Your task to perform on an android device: allow notifications from all sites in the chrome app Image 0: 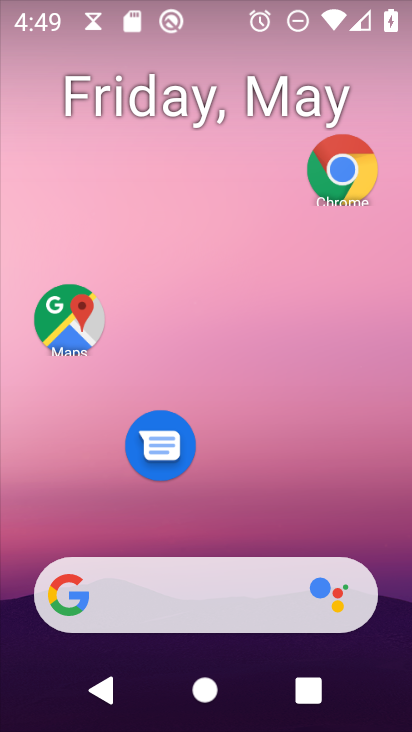
Step 0: click (358, 185)
Your task to perform on an android device: allow notifications from all sites in the chrome app Image 1: 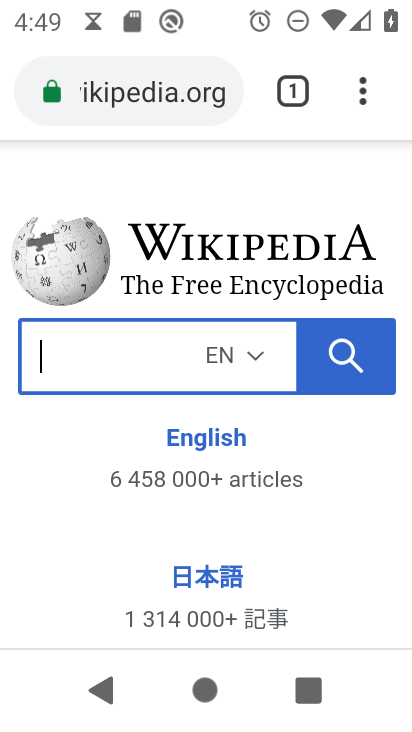
Step 1: click (370, 95)
Your task to perform on an android device: allow notifications from all sites in the chrome app Image 2: 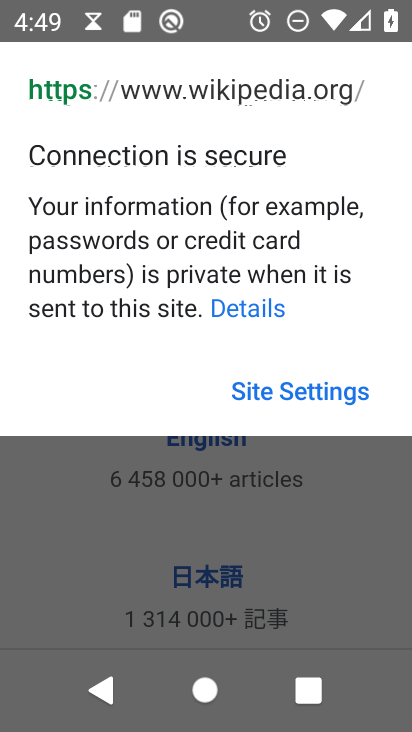
Step 2: click (105, 541)
Your task to perform on an android device: allow notifications from all sites in the chrome app Image 3: 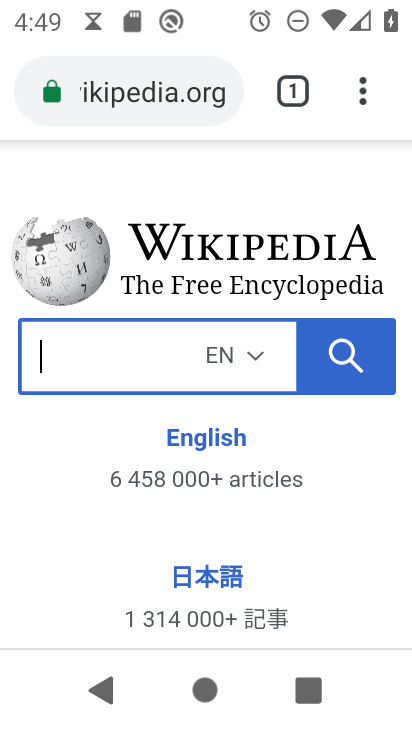
Step 3: click (358, 89)
Your task to perform on an android device: allow notifications from all sites in the chrome app Image 4: 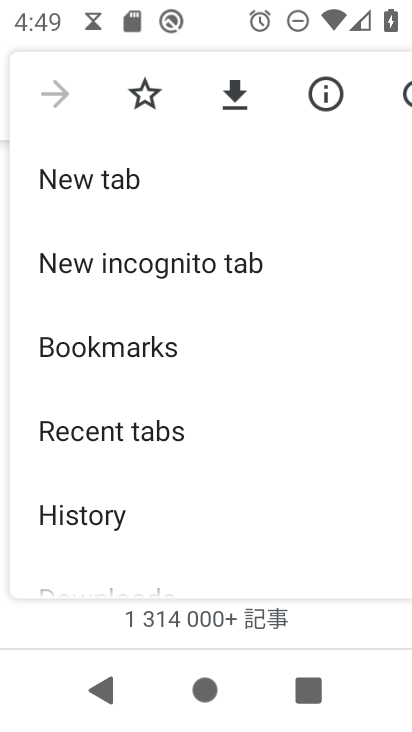
Step 4: drag from (110, 490) to (102, 132)
Your task to perform on an android device: allow notifications from all sites in the chrome app Image 5: 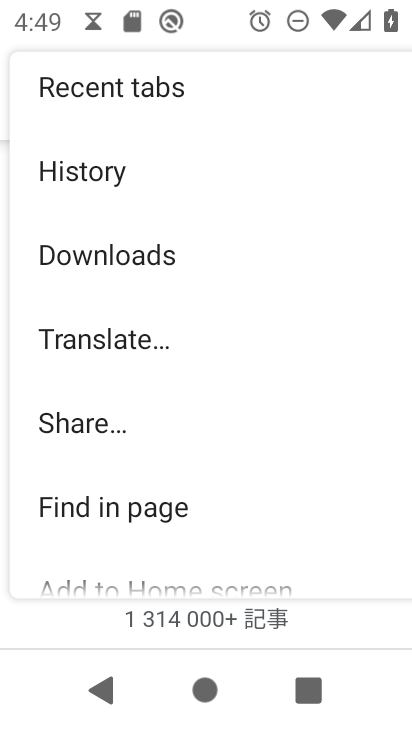
Step 5: drag from (125, 511) to (125, 168)
Your task to perform on an android device: allow notifications from all sites in the chrome app Image 6: 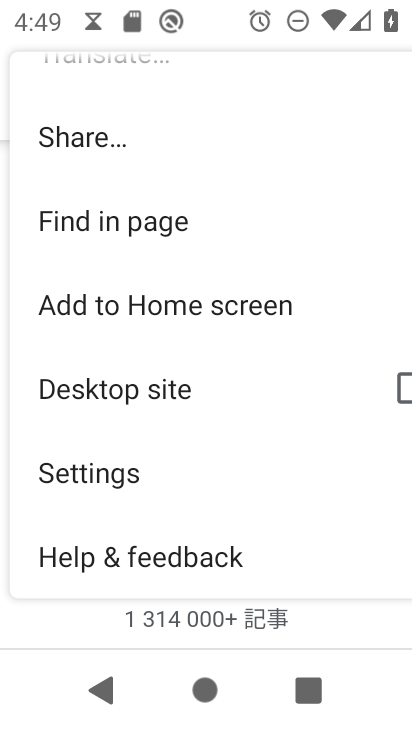
Step 6: click (90, 476)
Your task to perform on an android device: allow notifications from all sites in the chrome app Image 7: 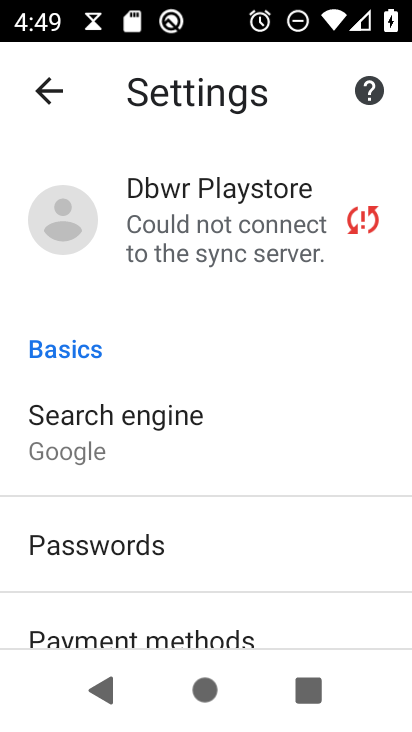
Step 7: drag from (150, 620) to (137, 356)
Your task to perform on an android device: allow notifications from all sites in the chrome app Image 8: 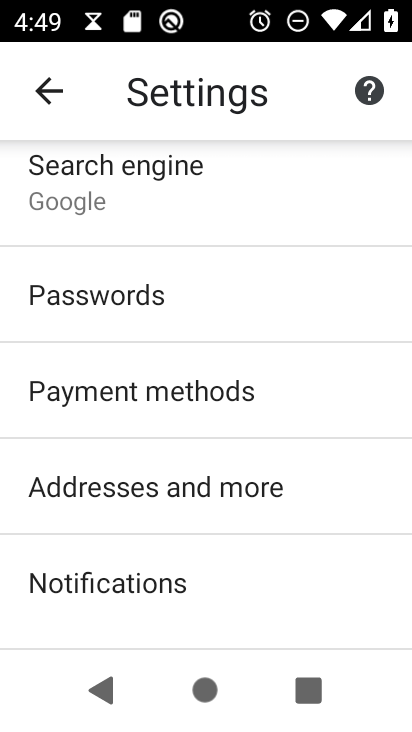
Step 8: click (144, 579)
Your task to perform on an android device: allow notifications from all sites in the chrome app Image 9: 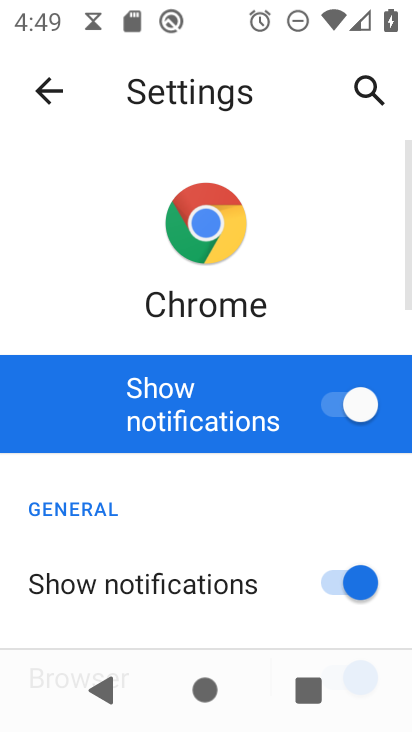
Step 9: drag from (143, 579) to (149, 279)
Your task to perform on an android device: allow notifications from all sites in the chrome app Image 10: 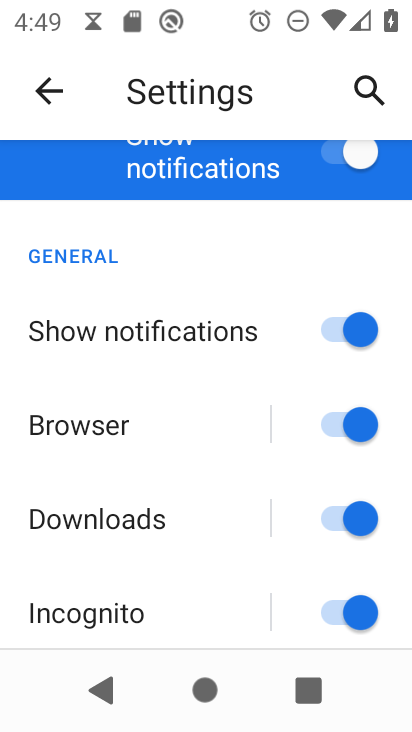
Step 10: click (46, 91)
Your task to perform on an android device: allow notifications from all sites in the chrome app Image 11: 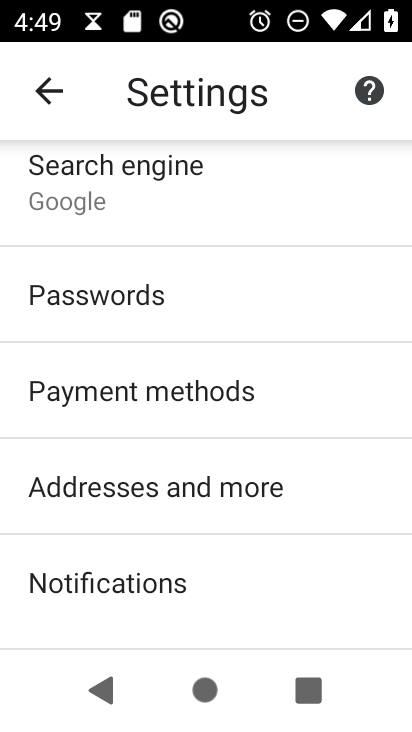
Step 11: drag from (148, 538) to (132, 158)
Your task to perform on an android device: allow notifications from all sites in the chrome app Image 12: 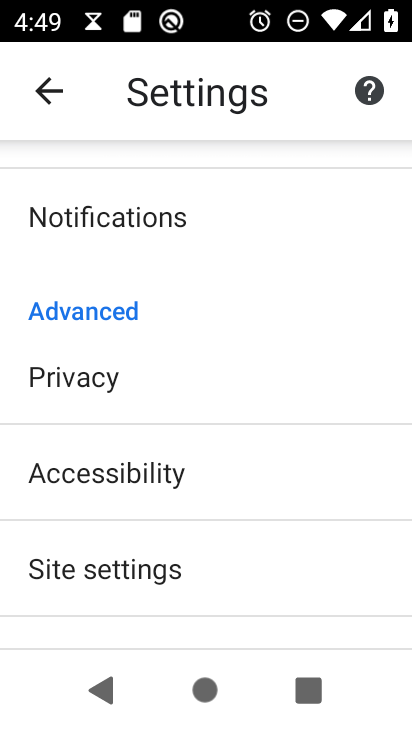
Step 12: click (100, 578)
Your task to perform on an android device: allow notifications from all sites in the chrome app Image 13: 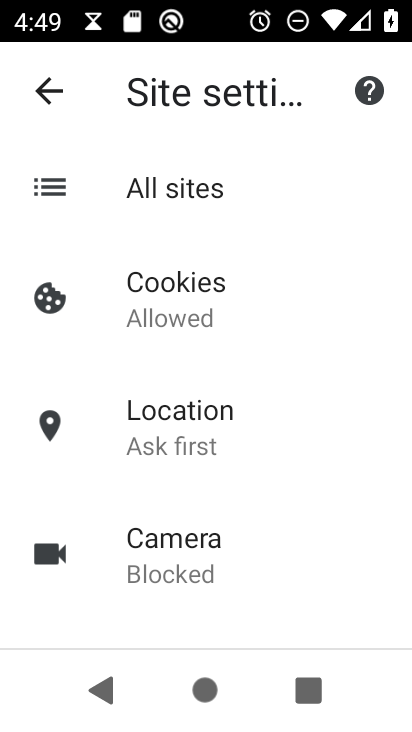
Step 13: drag from (174, 554) to (174, 236)
Your task to perform on an android device: allow notifications from all sites in the chrome app Image 14: 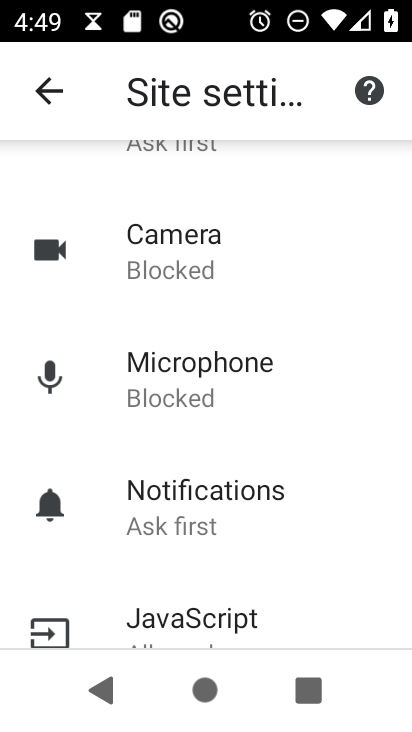
Step 14: click (164, 498)
Your task to perform on an android device: allow notifications from all sites in the chrome app Image 15: 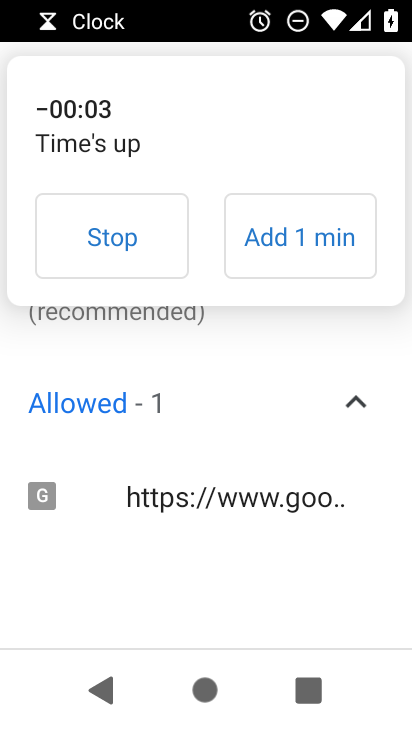
Step 15: task complete